Your task to perform on an android device: turn off wifi Image 0: 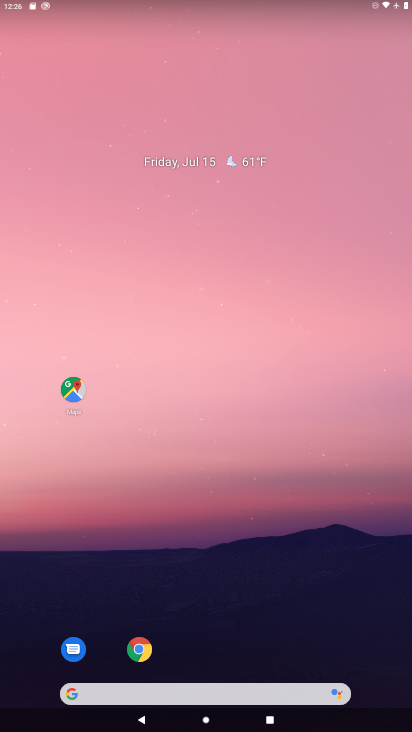
Step 0: drag from (264, 658) to (293, 58)
Your task to perform on an android device: turn off wifi Image 1: 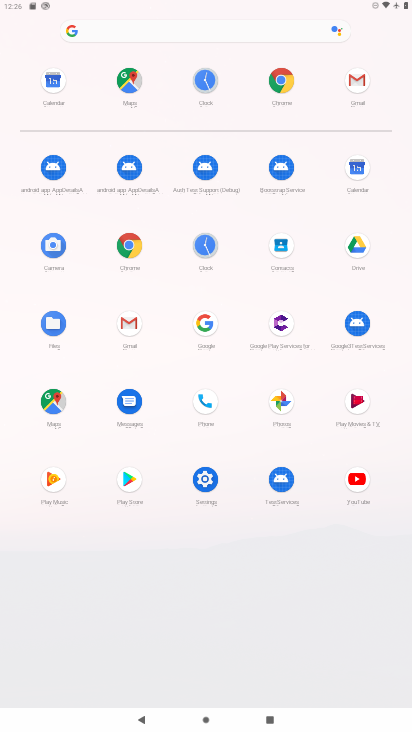
Step 1: click (204, 475)
Your task to perform on an android device: turn off wifi Image 2: 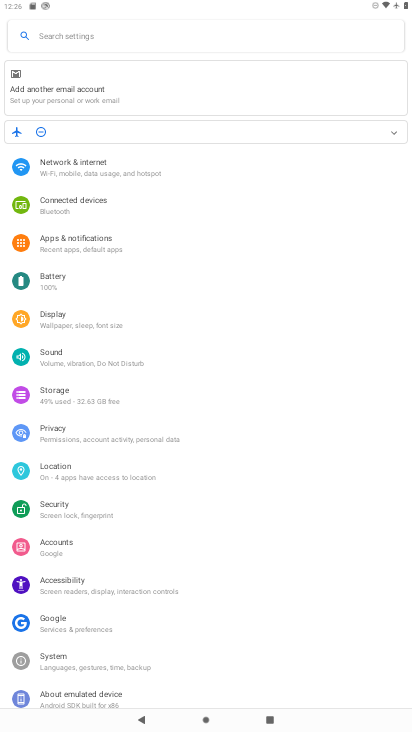
Step 2: click (98, 161)
Your task to perform on an android device: turn off wifi Image 3: 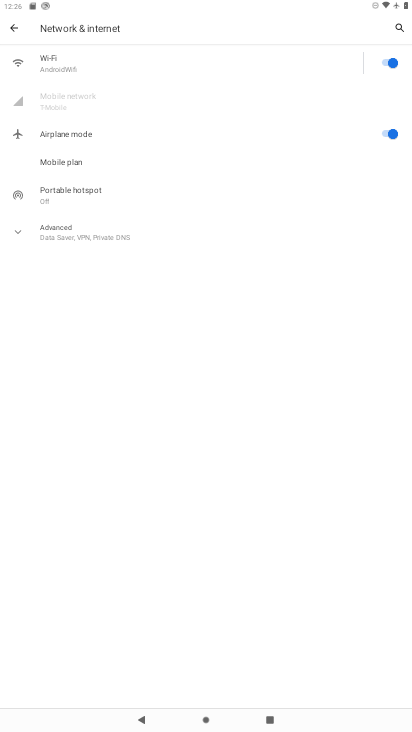
Step 3: click (386, 61)
Your task to perform on an android device: turn off wifi Image 4: 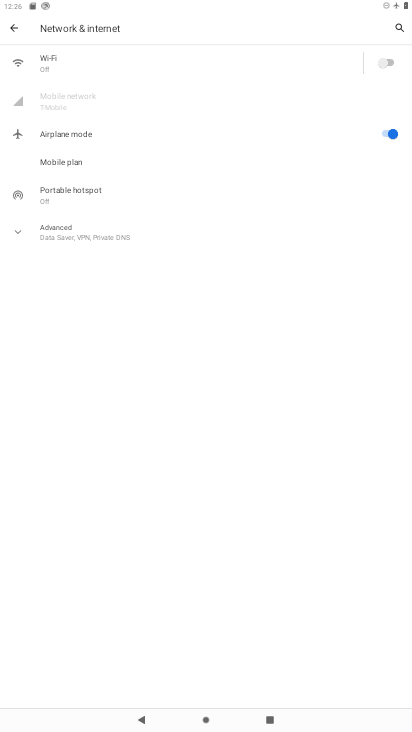
Step 4: task complete